Your task to perform on an android device: Do I have any events tomorrow? Image 0: 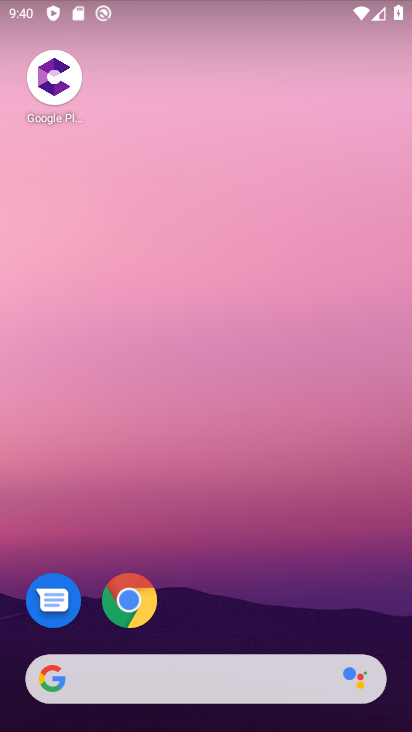
Step 0: drag from (330, 622) to (239, 52)
Your task to perform on an android device: Do I have any events tomorrow? Image 1: 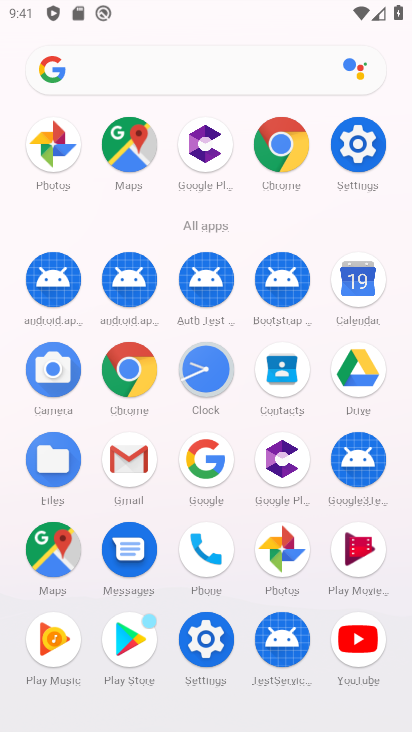
Step 1: click (368, 282)
Your task to perform on an android device: Do I have any events tomorrow? Image 2: 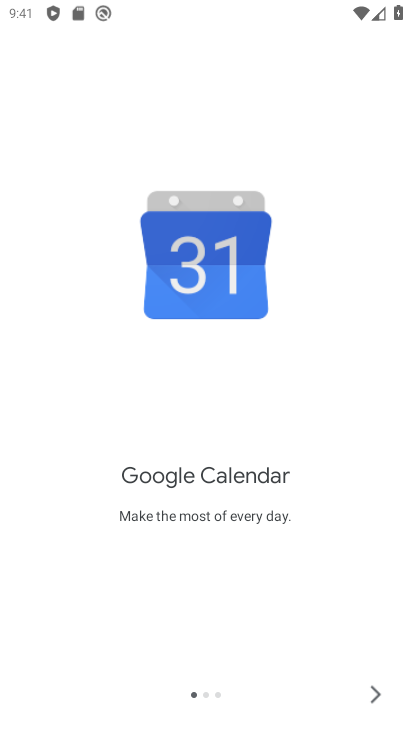
Step 2: click (374, 699)
Your task to perform on an android device: Do I have any events tomorrow? Image 3: 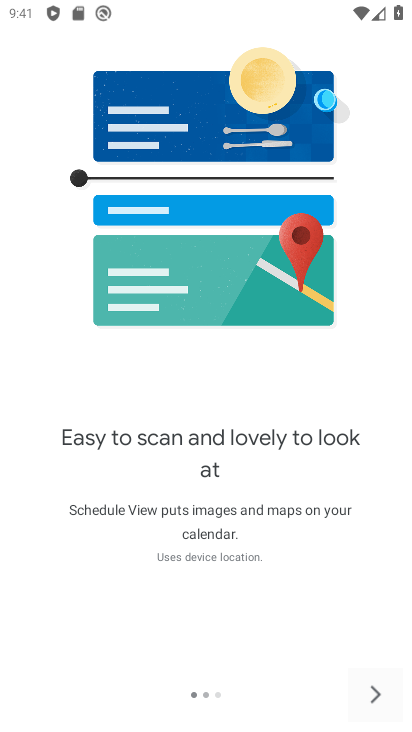
Step 3: click (374, 699)
Your task to perform on an android device: Do I have any events tomorrow? Image 4: 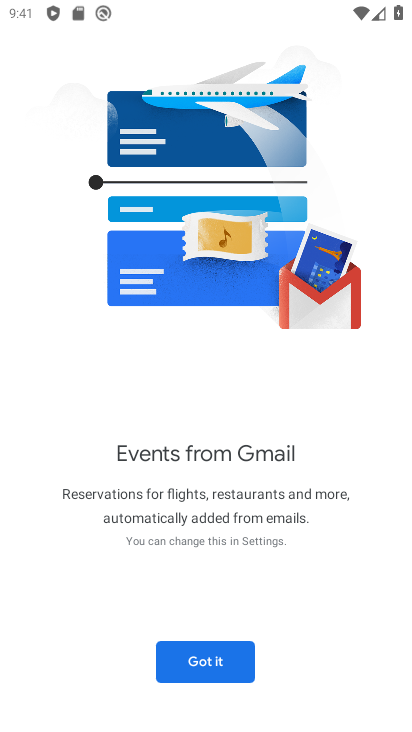
Step 4: click (198, 657)
Your task to perform on an android device: Do I have any events tomorrow? Image 5: 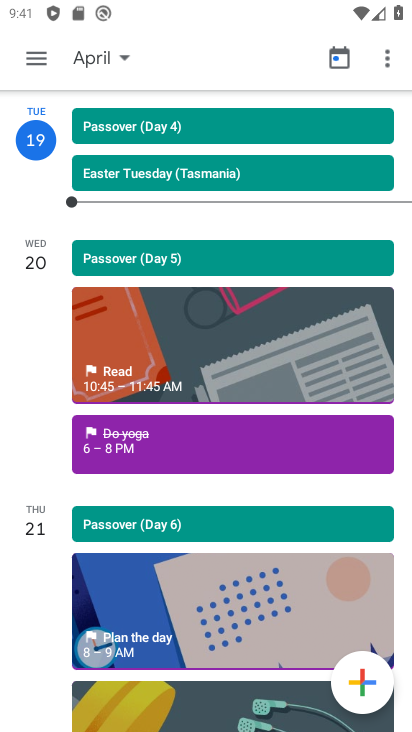
Step 5: click (95, 63)
Your task to perform on an android device: Do I have any events tomorrow? Image 6: 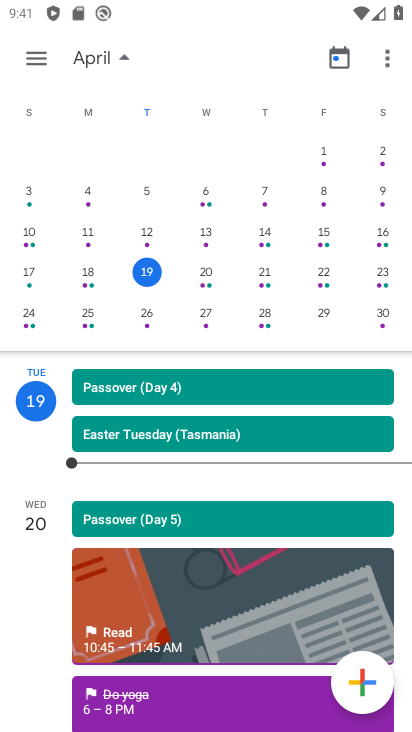
Step 6: click (206, 268)
Your task to perform on an android device: Do I have any events tomorrow? Image 7: 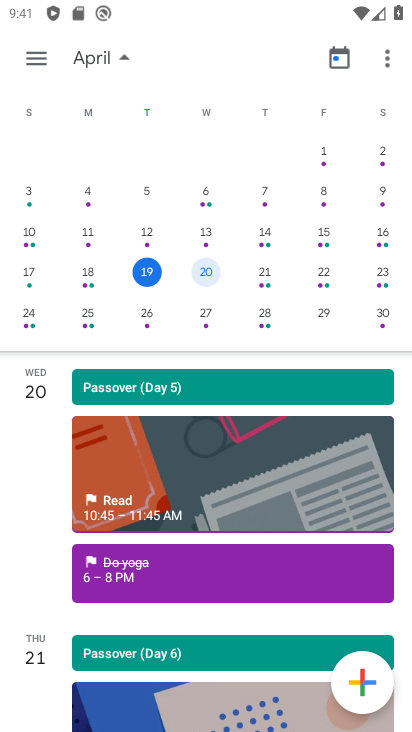
Step 7: click (260, 277)
Your task to perform on an android device: Do I have any events tomorrow? Image 8: 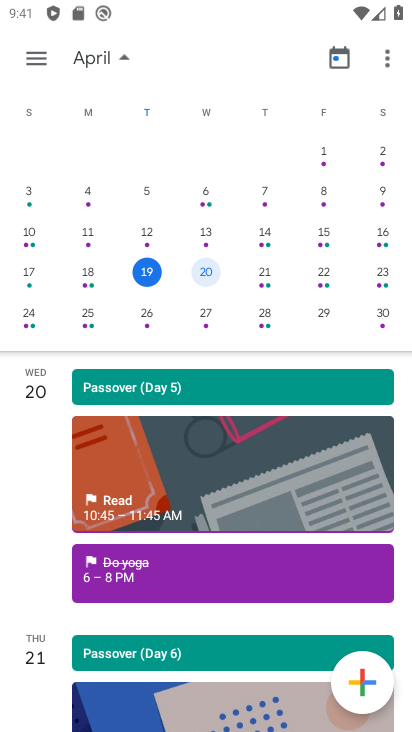
Step 8: click (262, 277)
Your task to perform on an android device: Do I have any events tomorrow? Image 9: 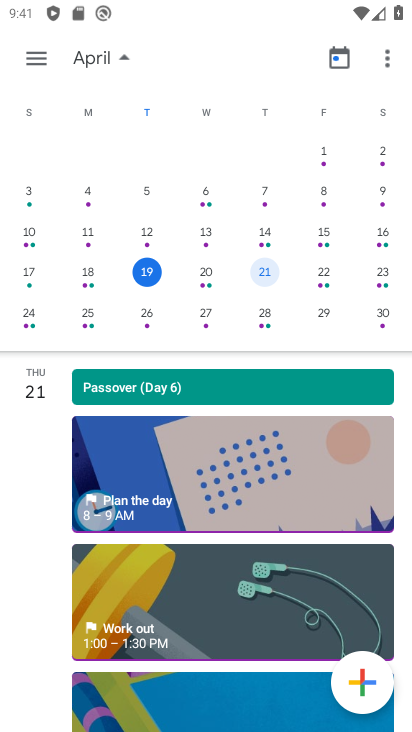
Step 9: click (169, 380)
Your task to perform on an android device: Do I have any events tomorrow? Image 10: 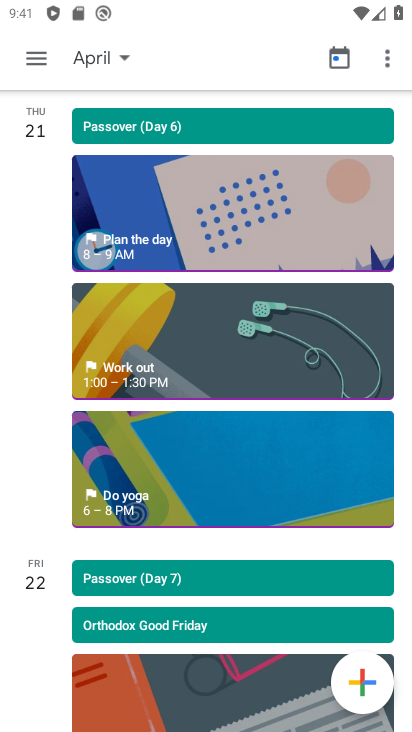
Step 10: task complete